Your task to perform on an android device: set an alarm Image 0: 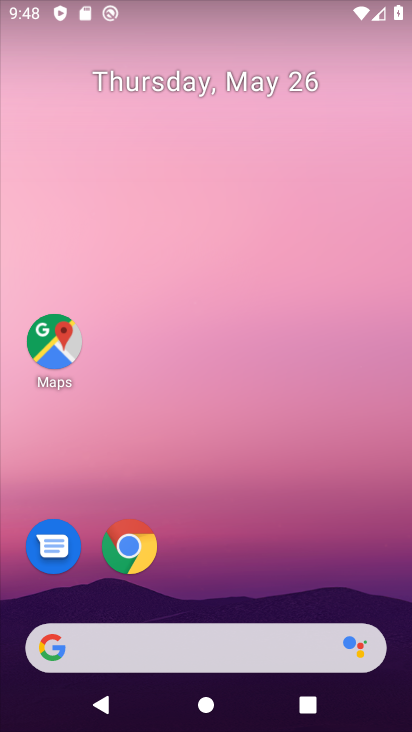
Step 0: drag from (252, 551) to (143, 51)
Your task to perform on an android device: set an alarm Image 1: 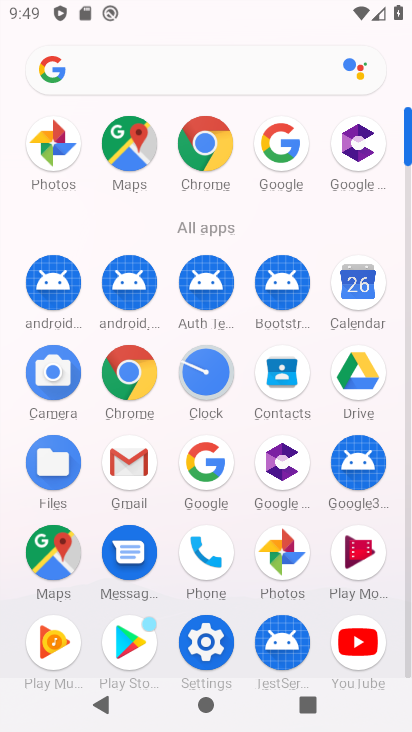
Step 1: click (206, 370)
Your task to perform on an android device: set an alarm Image 2: 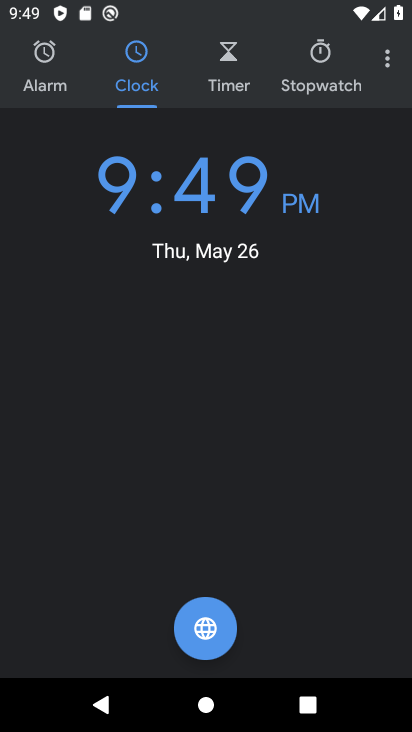
Step 2: click (49, 54)
Your task to perform on an android device: set an alarm Image 3: 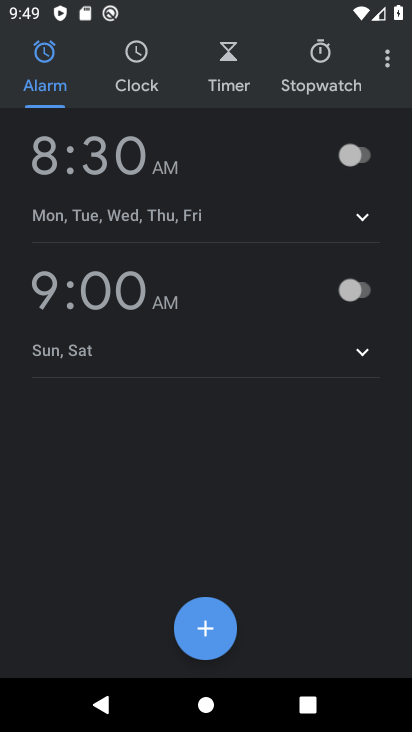
Step 3: click (207, 626)
Your task to perform on an android device: set an alarm Image 4: 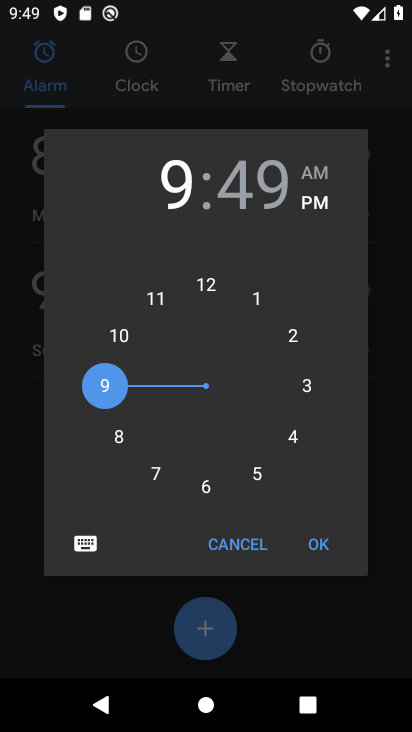
Step 4: click (195, 488)
Your task to perform on an android device: set an alarm Image 5: 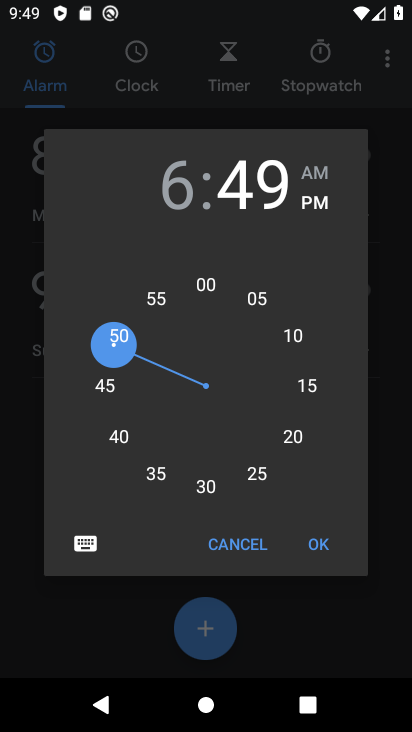
Step 5: click (195, 488)
Your task to perform on an android device: set an alarm Image 6: 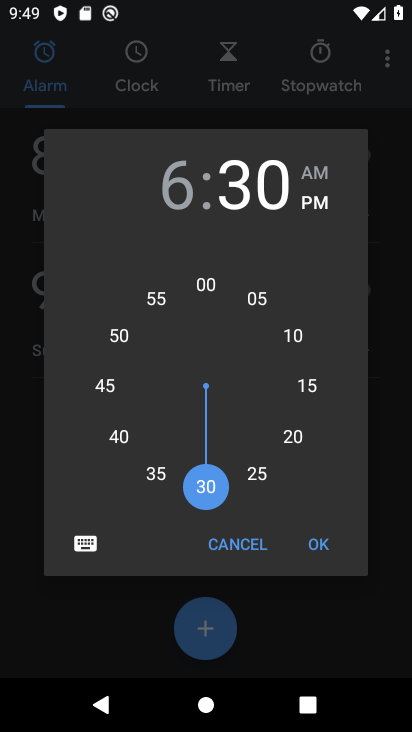
Step 6: click (316, 541)
Your task to perform on an android device: set an alarm Image 7: 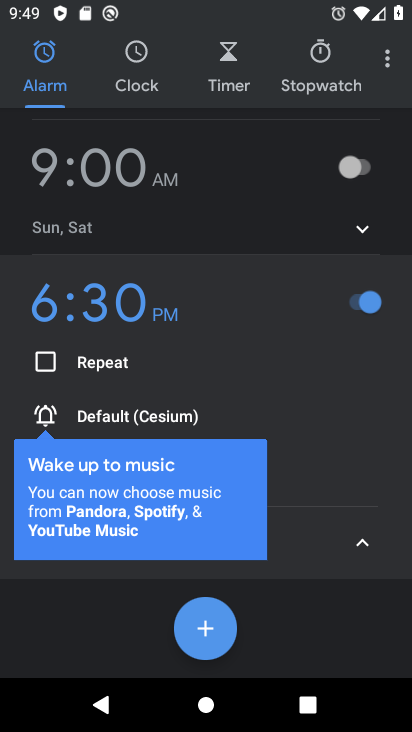
Step 7: click (371, 550)
Your task to perform on an android device: set an alarm Image 8: 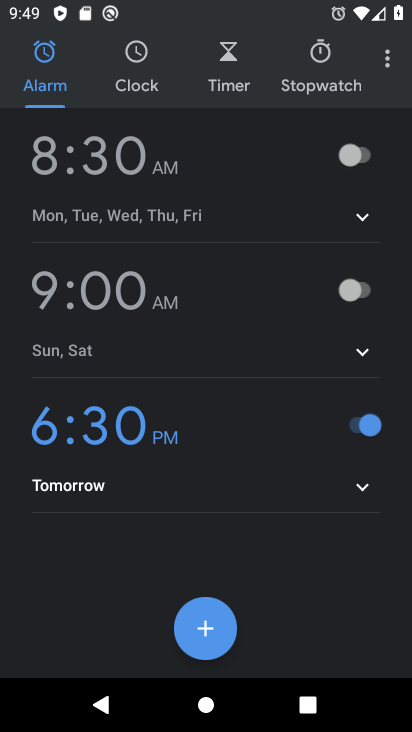
Step 8: task complete